Your task to perform on an android device: open app "Microsoft Authenticator" Image 0: 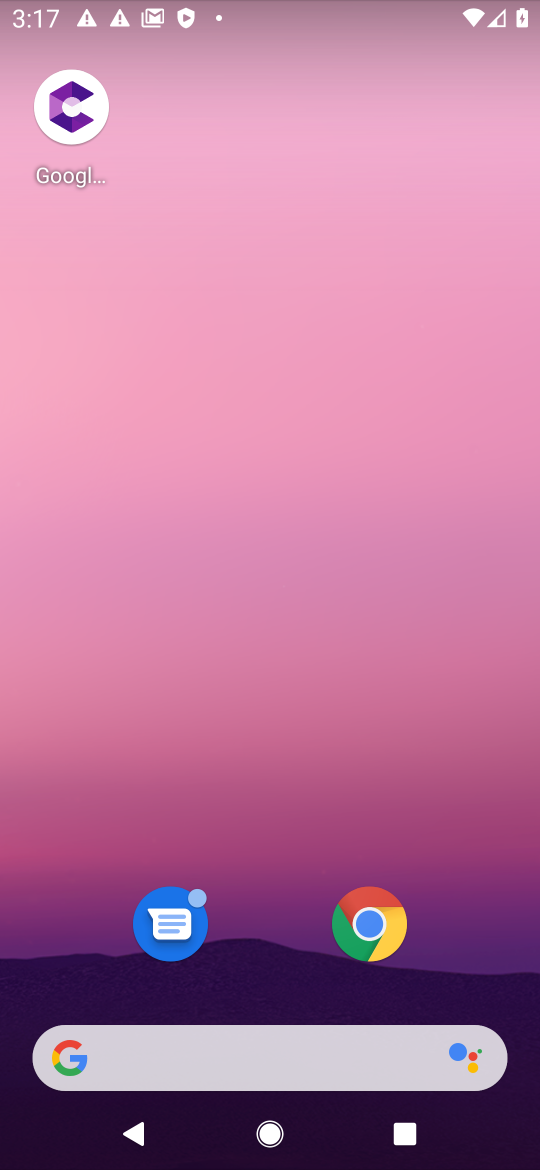
Step 0: drag from (326, 1163) to (329, 385)
Your task to perform on an android device: open app "Microsoft Authenticator" Image 1: 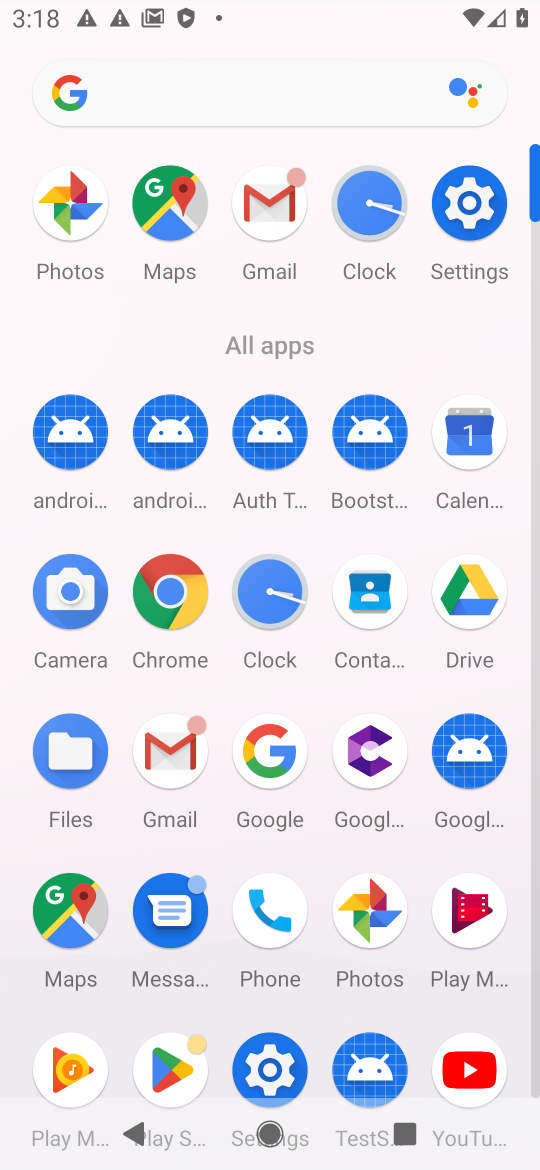
Step 1: click (166, 1063)
Your task to perform on an android device: open app "Microsoft Authenticator" Image 2: 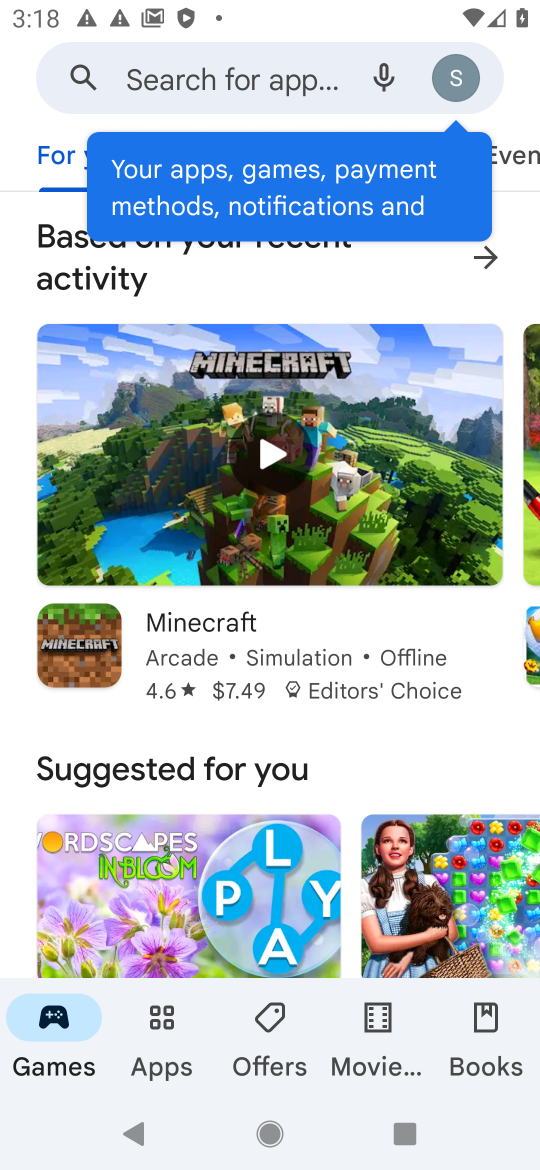
Step 2: click (265, 67)
Your task to perform on an android device: open app "Microsoft Authenticator" Image 3: 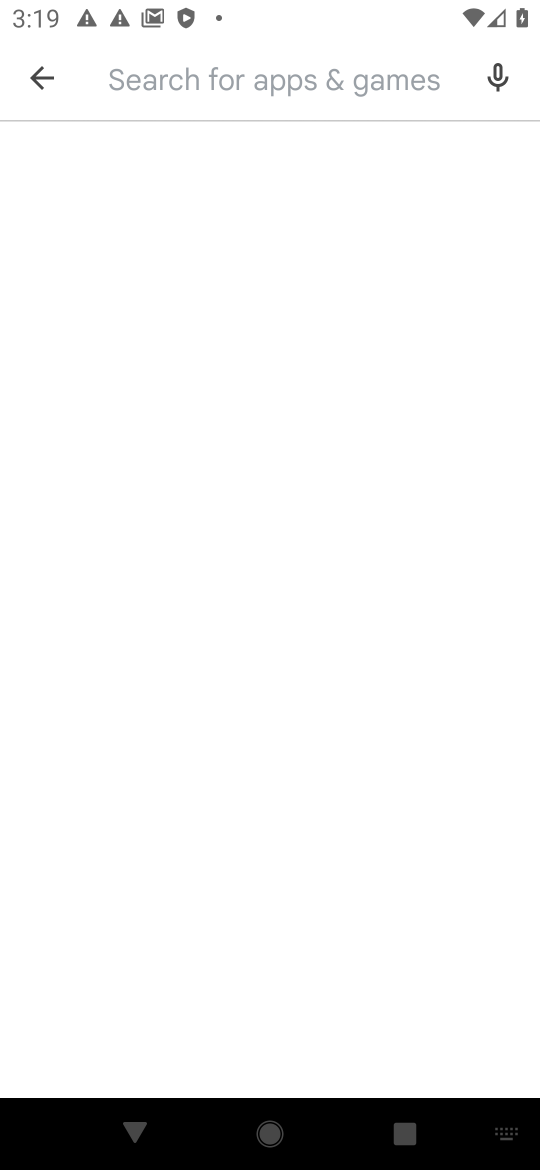
Step 3: type "Microsoft Authenticator"
Your task to perform on an android device: open app "Microsoft Authenticator" Image 4: 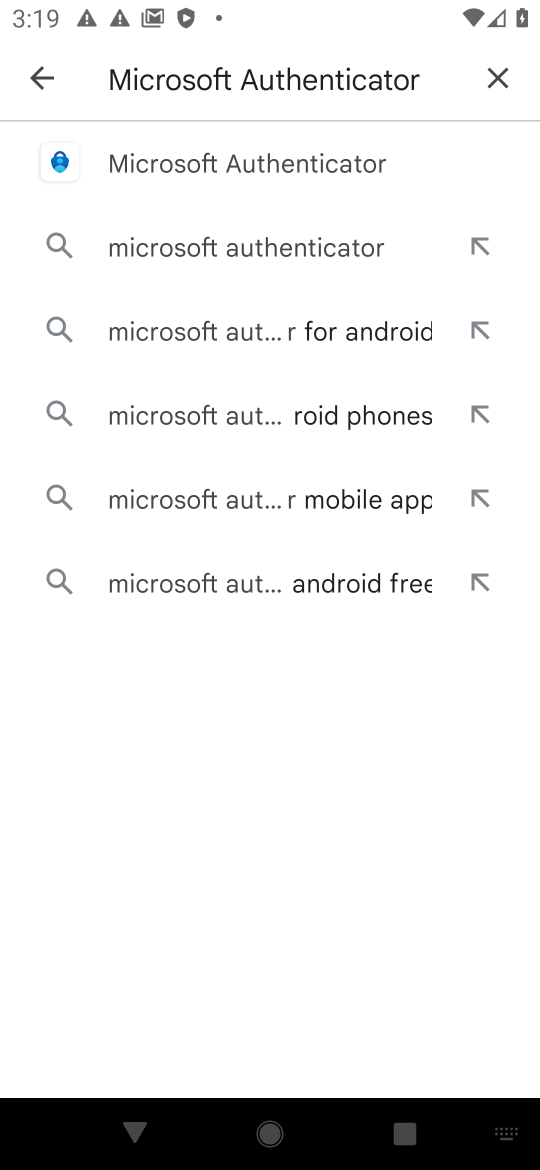
Step 4: click (261, 160)
Your task to perform on an android device: open app "Microsoft Authenticator" Image 5: 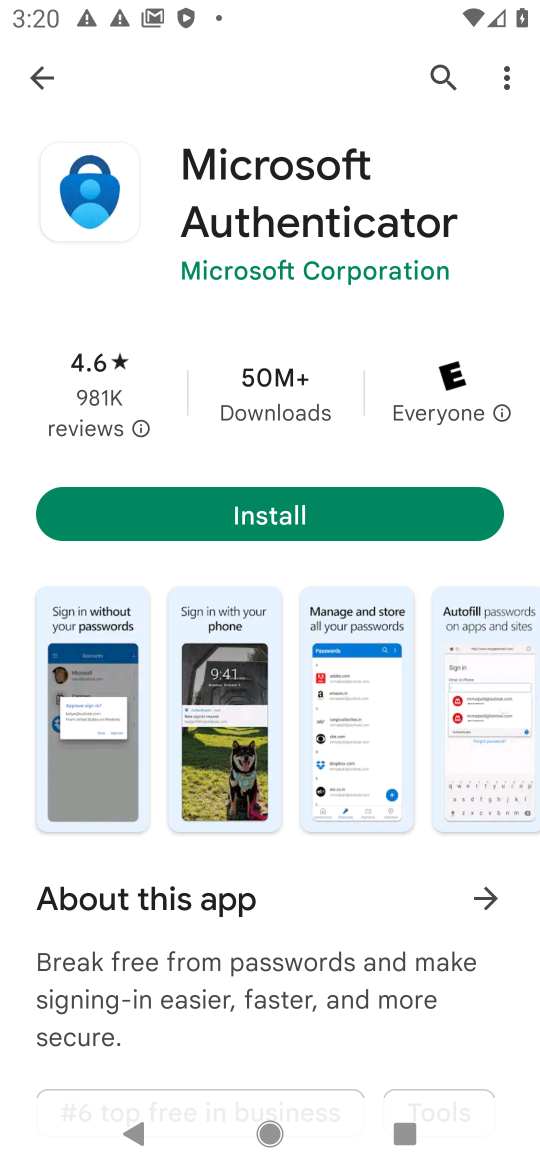
Step 5: task complete